Your task to perform on an android device: Empty the shopping cart on target. Add apple airpods pro to the cart on target, then select checkout. Image 0: 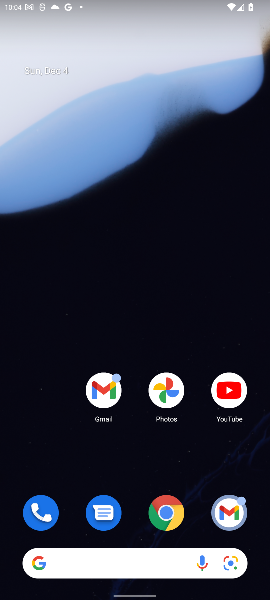
Step 0: click (163, 517)
Your task to perform on an android device: Empty the shopping cart on target. Add apple airpods pro to the cart on target, then select checkout. Image 1: 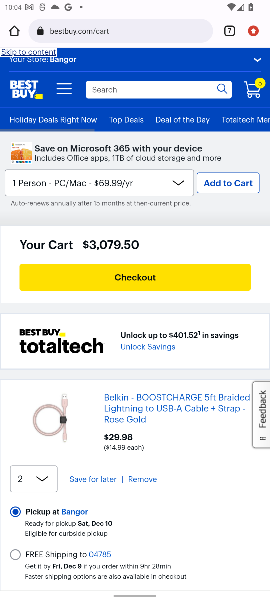
Step 1: click (225, 32)
Your task to perform on an android device: Empty the shopping cart on target. Add apple airpods pro to the cart on target, then select checkout. Image 2: 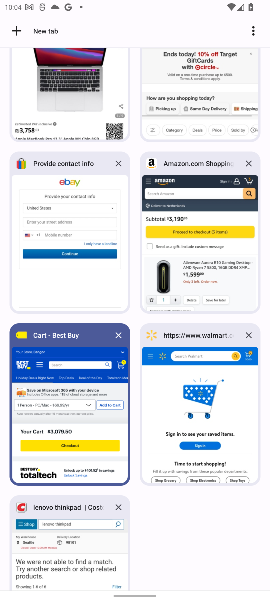
Step 2: click (204, 91)
Your task to perform on an android device: Empty the shopping cart on target. Add apple airpods pro to the cart on target, then select checkout. Image 3: 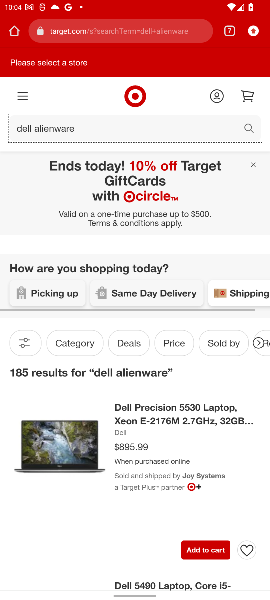
Step 3: click (249, 97)
Your task to perform on an android device: Empty the shopping cart on target. Add apple airpods pro to the cart on target, then select checkout. Image 4: 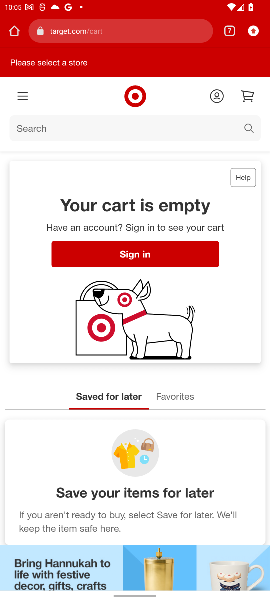
Step 4: click (136, 129)
Your task to perform on an android device: Empty the shopping cart on target. Add apple airpods pro to the cart on target, then select checkout. Image 5: 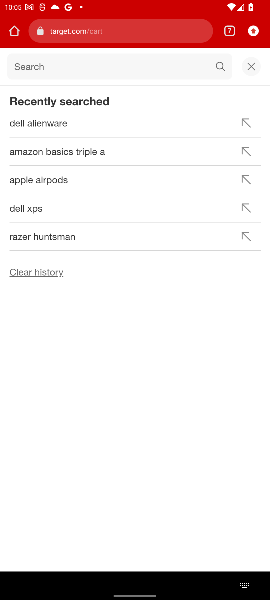
Step 5: type "apple airpods"
Your task to perform on an android device: Empty the shopping cart on target. Add apple airpods pro to the cart on target, then select checkout. Image 6: 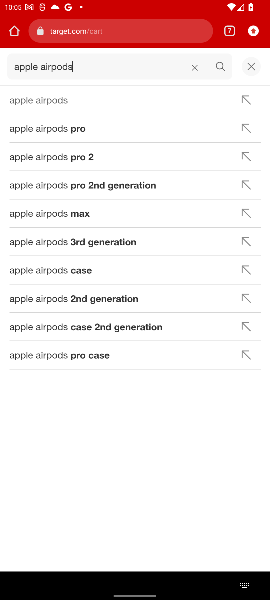
Step 6: click (41, 96)
Your task to perform on an android device: Empty the shopping cart on target. Add apple airpods pro to the cart on target, then select checkout. Image 7: 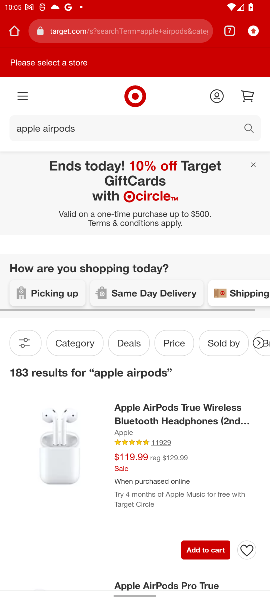
Step 7: click (200, 545)
Your task to perform on an android device: Empty the shopping cart on target. Add apple airpods pro to the cart on target, then select checkout. Image 8: 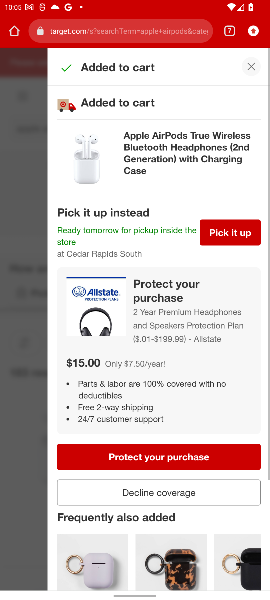
Step 8: click (255, 64)
Your task to perform on an android device: Empty the shopping cart on target. Add apple airpods pro to the cart on target, then select checkout. Image 9: 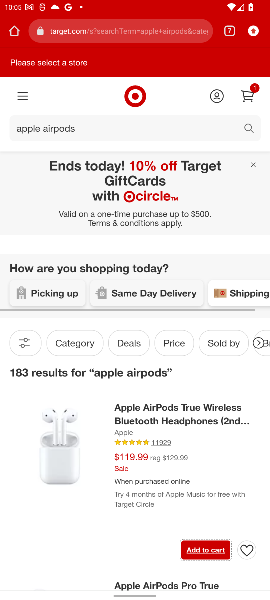
Step 9: click (254, 97)
Your task to perform on an android device: Empty the shopping cart on target. Add apple airpods pro to the cart on target, then select checkout. Image 10: 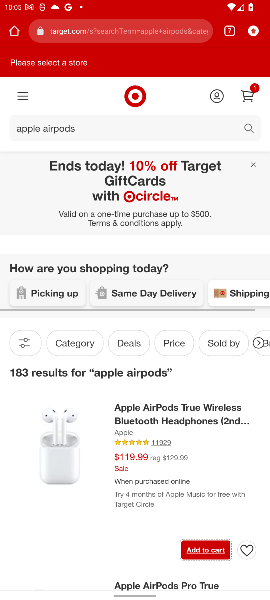
Step 10: click (254, 97)
Your task to perform on an android device: Empty the shopping cart on target. Add apple airpods pro to the cart on target, then select checkout. Image 11: 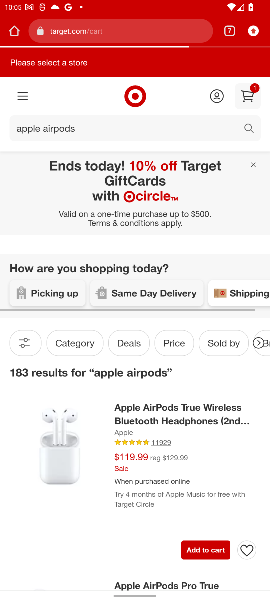
Step 11: click (254, 97)
Your task to perform on an android device: Empty the shopping cart on target. Add apple airpods pro to the cart on target, then select checkout. Image 12: 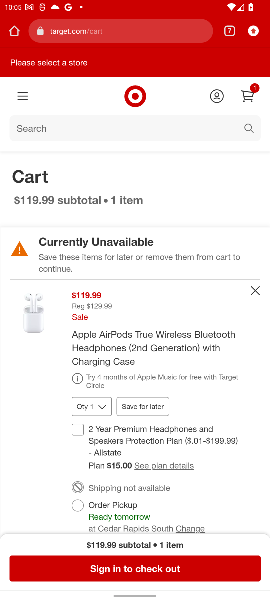
Step 12: task complete